Your task to perform on an android device: find photos in the google photos app Image 0: 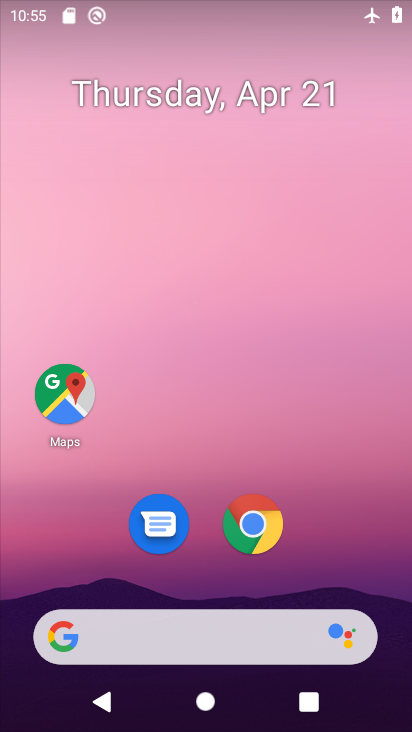
Step 0: drag from (359, 547) to (340, 73)
Your task to perform on an android device: find photos in the google photos app Image 1: 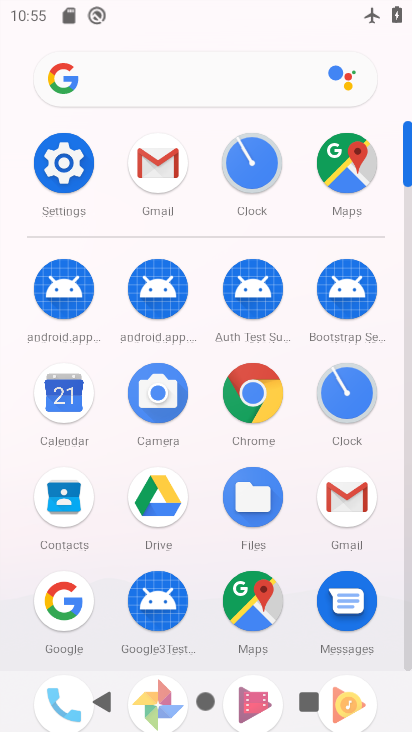
Step 1: drag from (187, 400) to (235, 134)
Your task to perform on an android device: find photos in the google photos app Image 2: 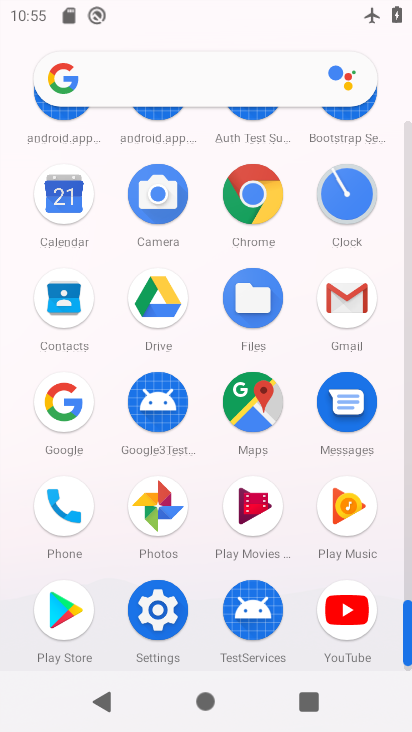
Step 2: click (156, 500)
Your task to perform on an android device: find photos in the google photos app Image 3: 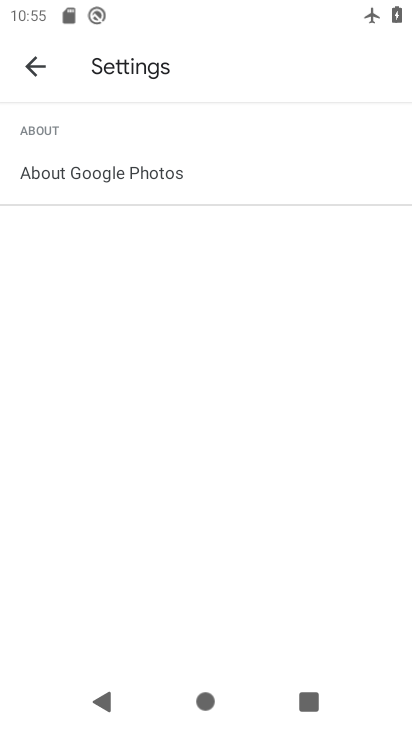
Step 3: click (36, 53)
Your task to perform on an android device: find photos in the google photos app Image 4: 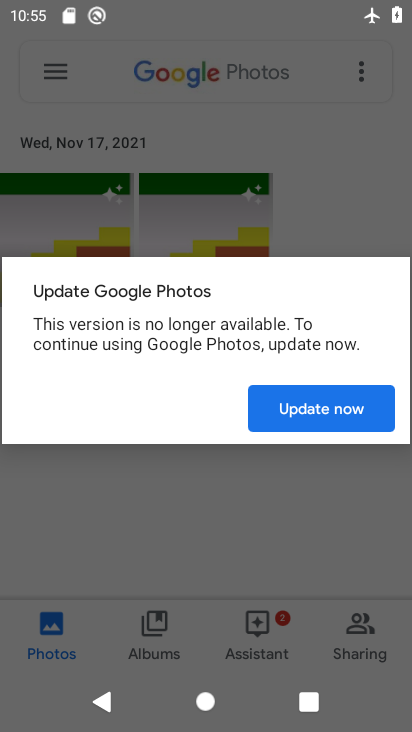
Step 4: click (351, 405)
Your task to perform on an android device: find photos in the google photos app Image 5: 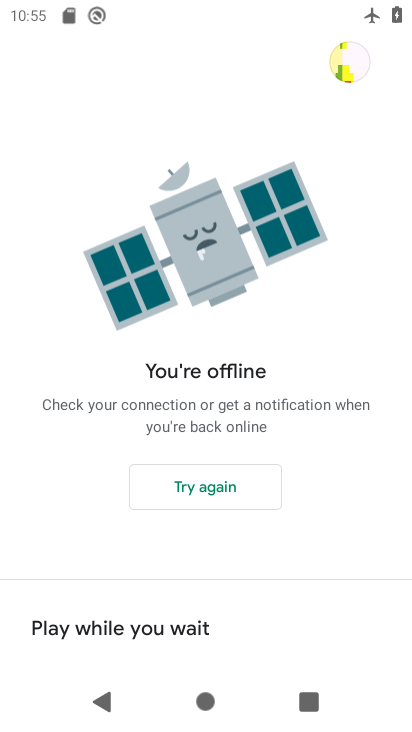
Step 5: task complete